Your task to perform on an android device: turn off data saver in the chrome app Image 0: 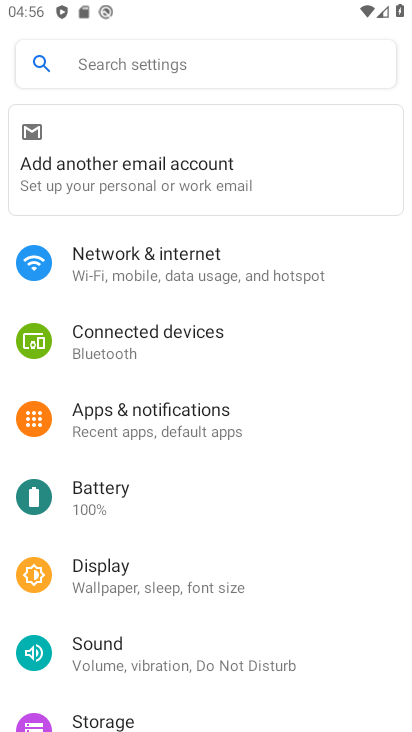
Step 0: press home button
Your task to perform on an android device: turn off data saver in the chrome app Image 1: 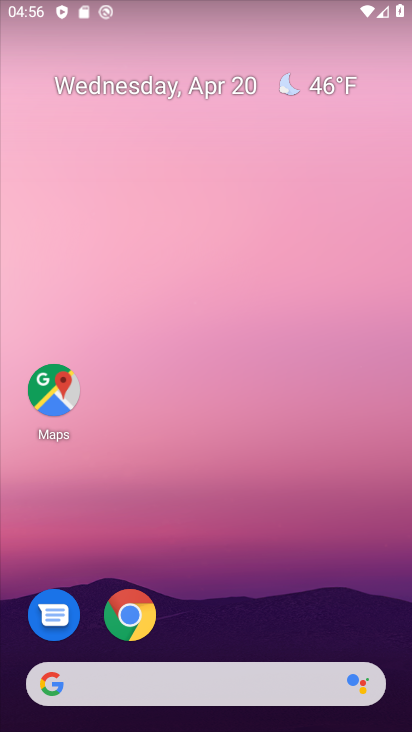
Step 1: click (141, 614)
Your task to perform on an android device: turn off data saver in the chrome app Image 2: 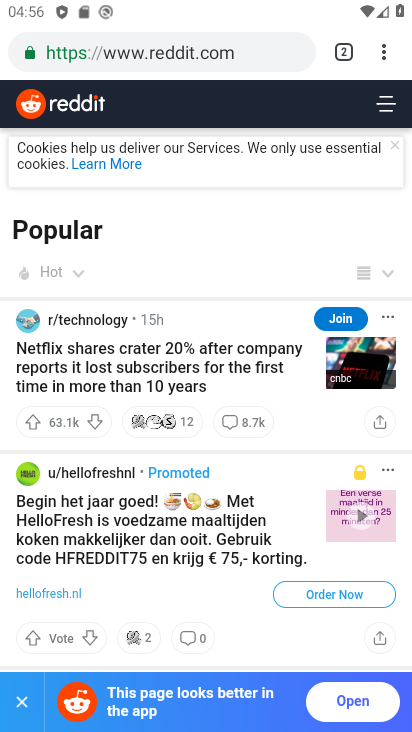
Step 2: drag from (383, 46) to (211, 645)
Your task to perform on an android device: turn off data saver in the chrome app Image 3: 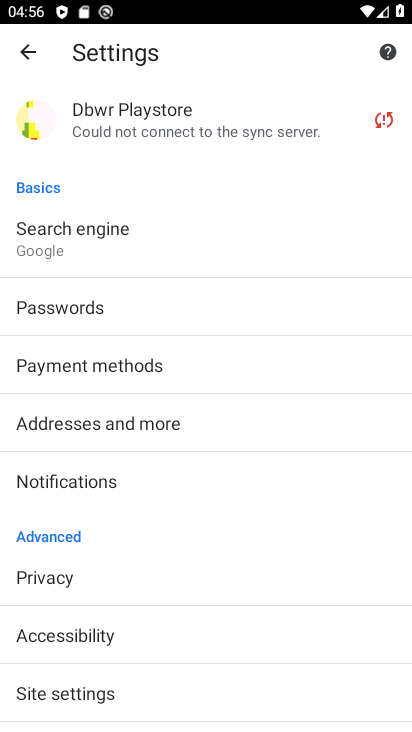
Step 3: drag from (145, 655) to (260, 154)
Your task to perform on an android device: turn off data saver in the chrome app Image 4: 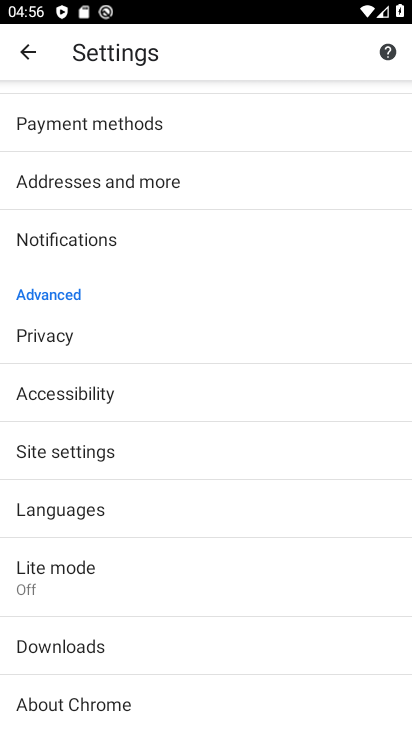
Step 4: click (134, 569)
Your task to perform on an android device: turn off data saver in the chrome app Image 5: 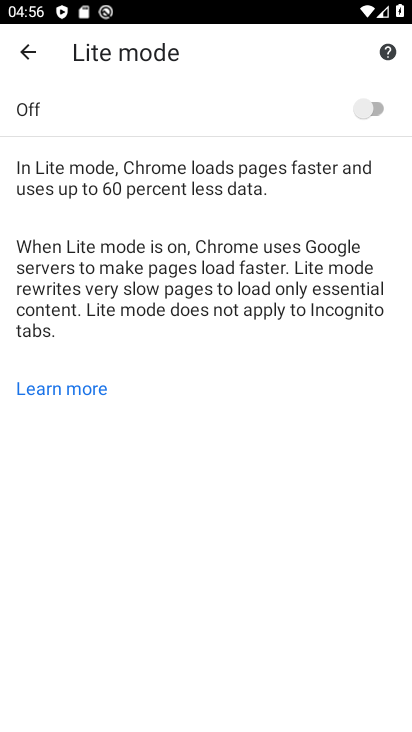
Step 5: task complete